Your task to perform on an android device: allow cookies in the chrome app Image 0: 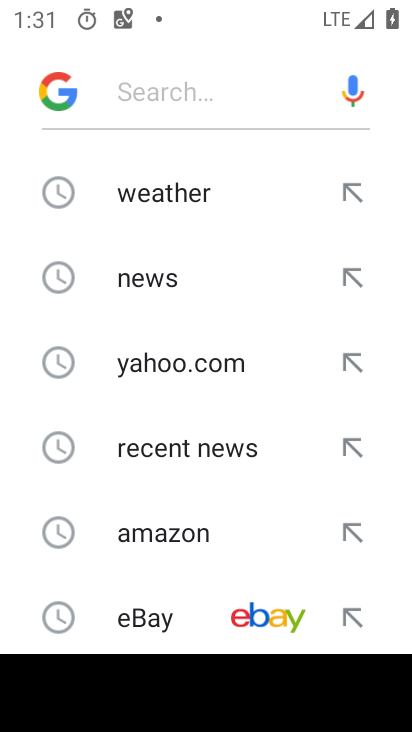
Step 0: press home button
Your task to perform on an android device: allow cookies in the chrome app Image 1: 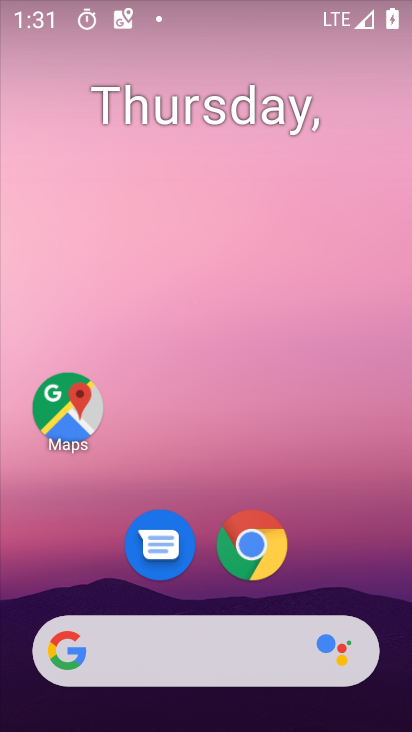
Step 1: drag from (313, 638) to (351, 2)
Your task to perform on an android device: allow cookies in the chrome app Image 2: 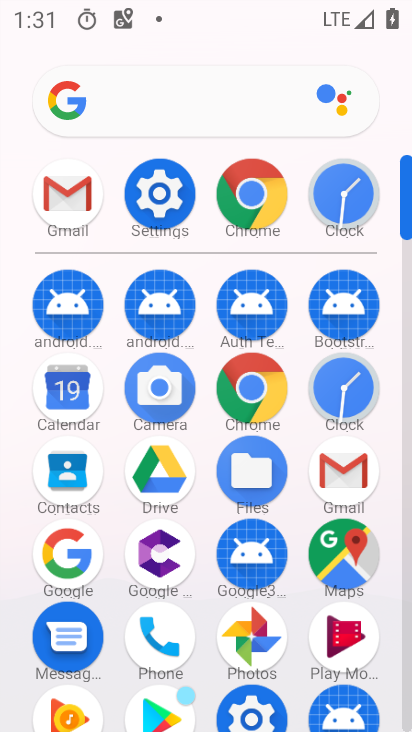
Step 2: click (262, 386)
Your task to perform on an android device: allow cookies in the chrome app Image 3: 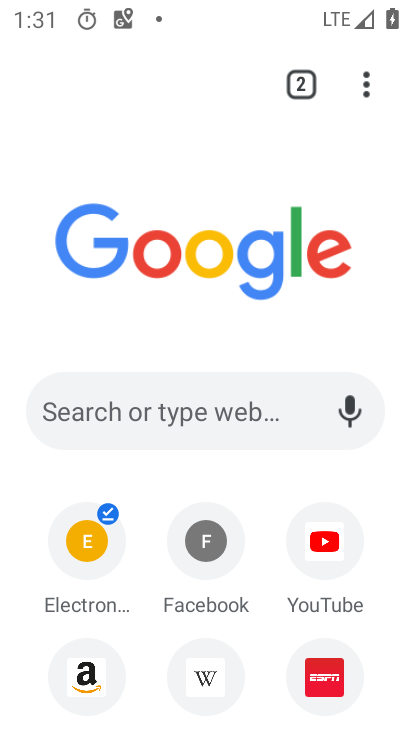
Step 3: drag from (365, 81) to (162, 594)
Your task to perform on an android device: allow cookies in the chrome app Image 4: 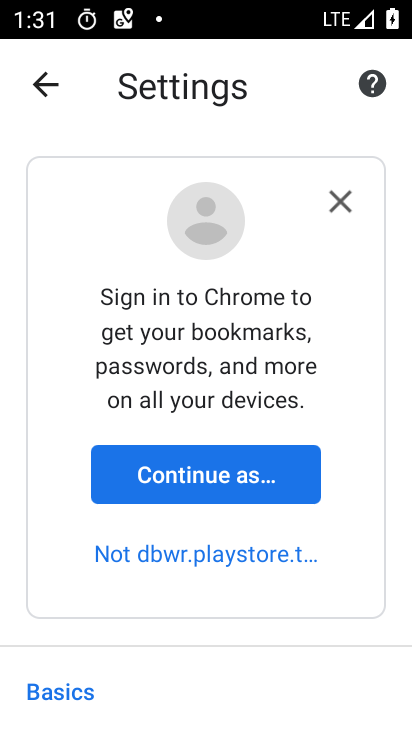
Step 4: drag from (259, 673) to (321, 62)
Your task to perform on an android device: allow cookies in the chrome app Image 5: 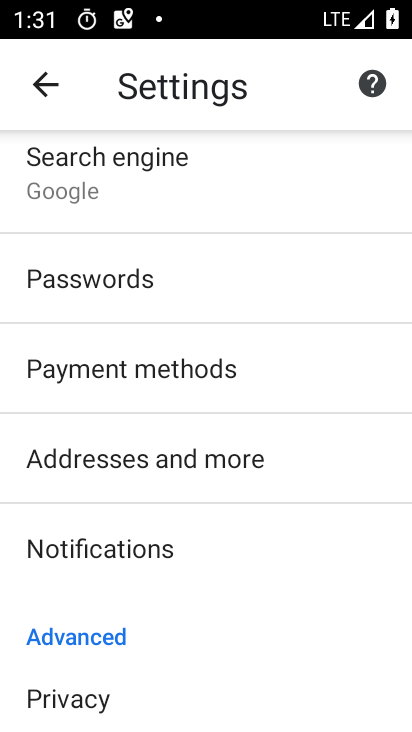
Step 5: drag from (250, 662) to (316, 144)
Your task to perform on an android device: allow cookies in the chrome app Image 6: 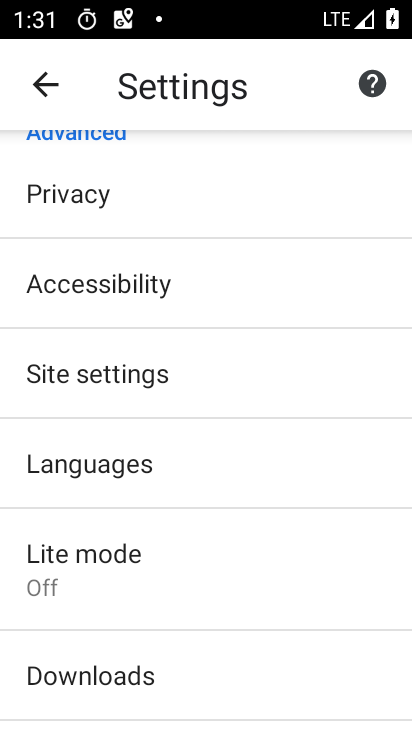
Step 6: click (158, 209)
Your task to perform on an android device: allow cookies in the chrome app Image 7: 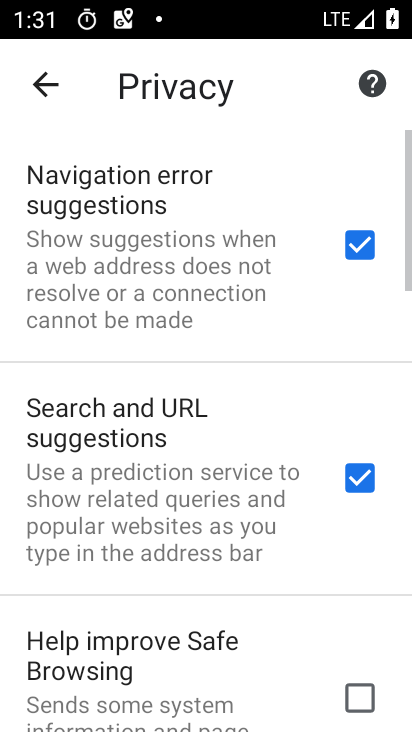
Step 7: drag from (215, 704) to (255, 104)
Your task to perform on an android device: allow cookies in the chrome app Image 8: 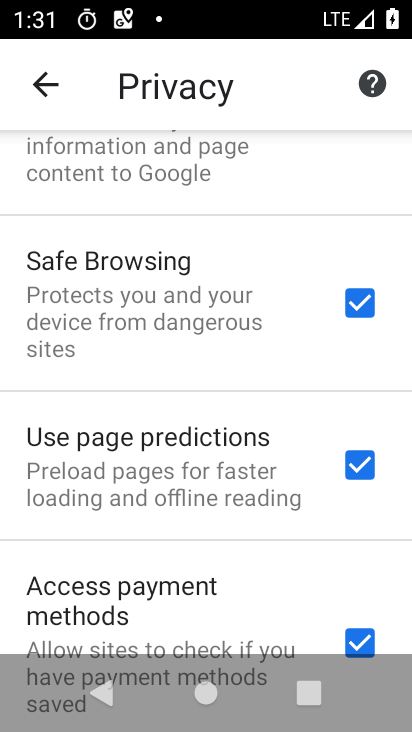
Step 8: drag from (258, 624) to (262, 78)
Your task to perform on an android device: allow cookies in the chrome app Image 9: 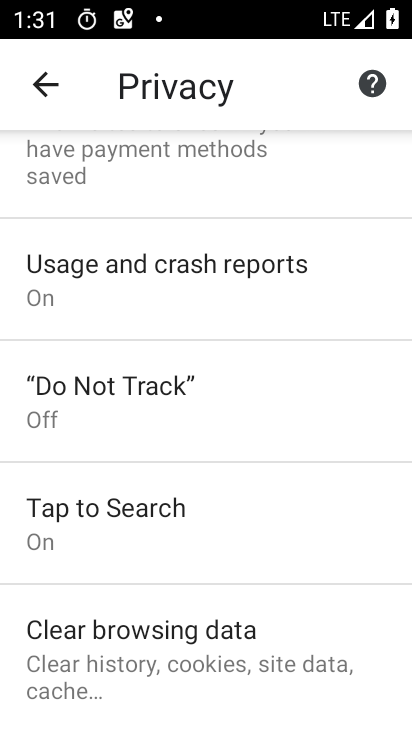
Step 9: drag from (241, 660) to (277, 182)
Your task to perform on an android device: allow cookies in the chrome app Image 10: 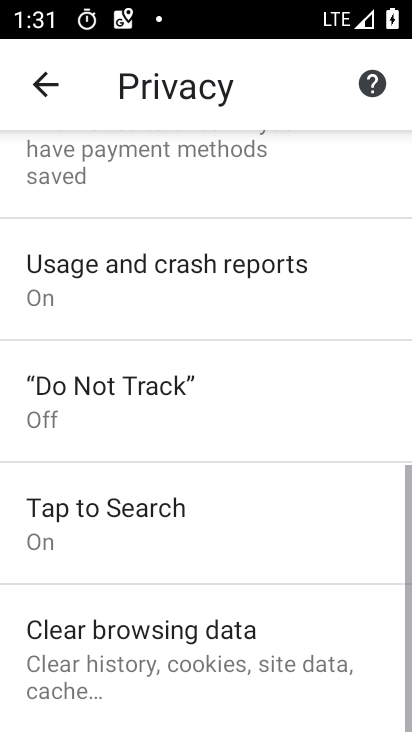
Step 10: click (242, 637)
Your task to perform on an android device: allow cookies in the chrome app Image 11: 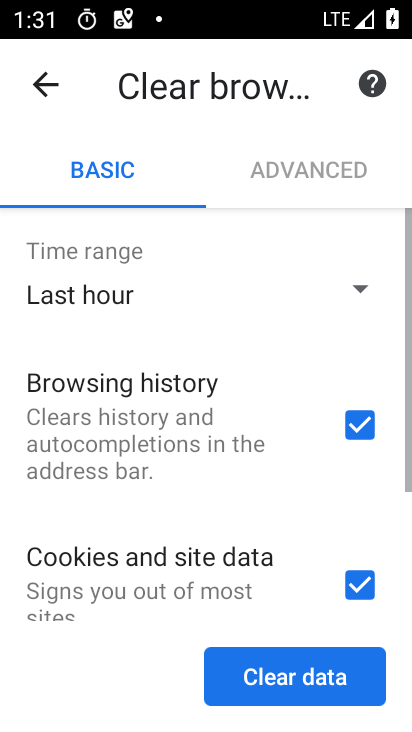
Step 11: click (280, 696)
Your task to perform on an android device: allow cookies in the chrome app Image 12: 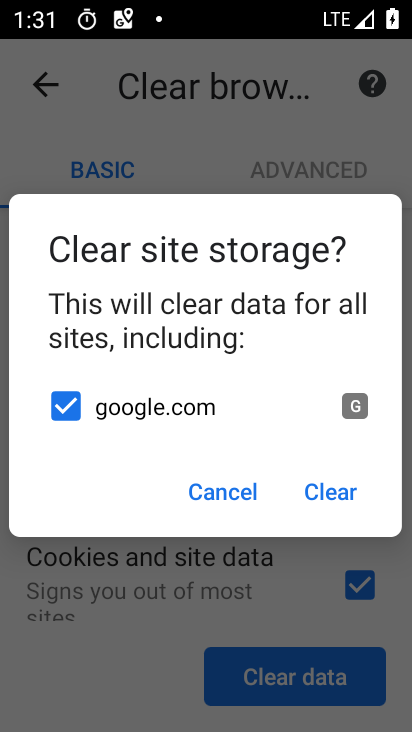
Step 12: click (326, 493)
Your task to perform on an android device: allow cookies in the chrome app Image 13: 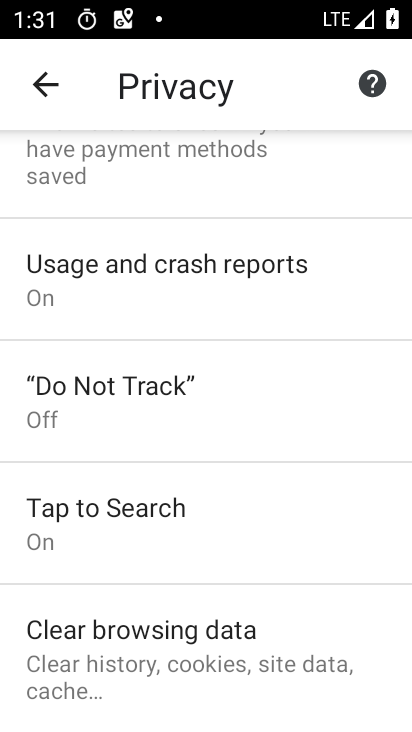
Step 13: task complete